Your task to perform on an android device: Go to privacy settings Image 0: 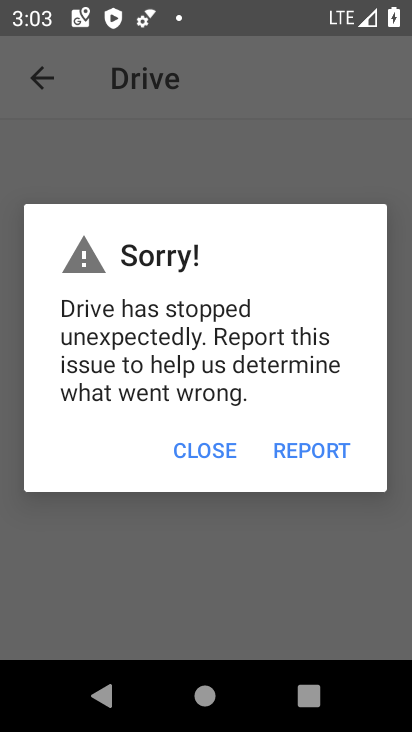
Step 0: click (215, 445)
Your task to perform on an android device: Go to privacy settings Image 1: 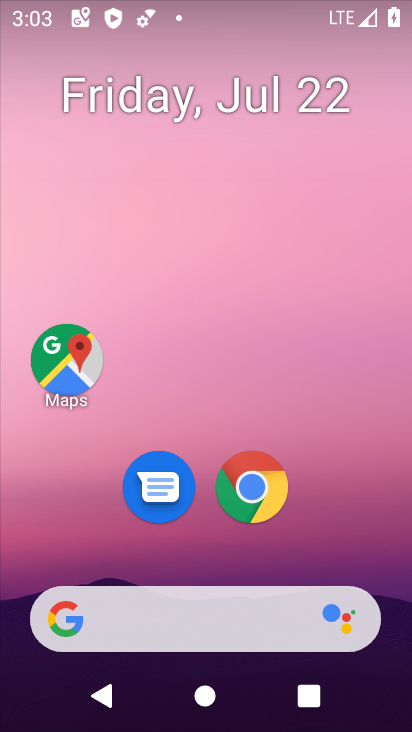
Step 1: drag from (198, 570) to (301, 24)
Your task to perform on an android device: Go to privacy settings Image 2: 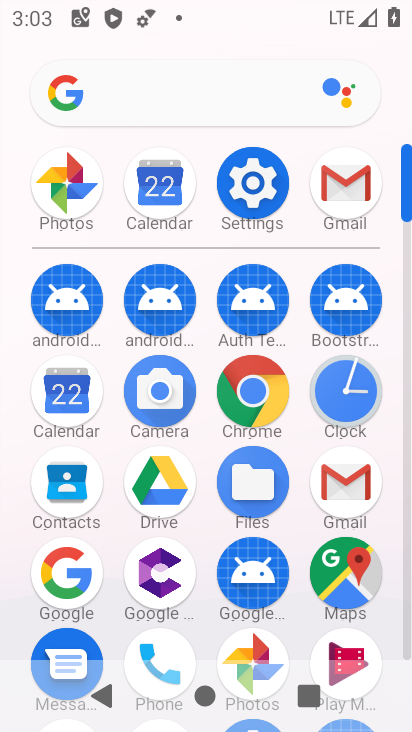
Step 2: click (258, 181)
Your task to perform on an android device: Go to privacy settings Image 3: 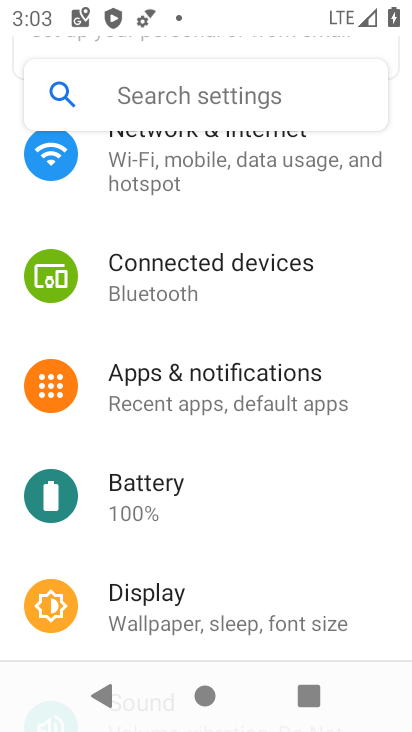
Step 3: drag from (231, 367) to (280, 56)
Your task to perform on an android device: Go to privacy settings Image 4: 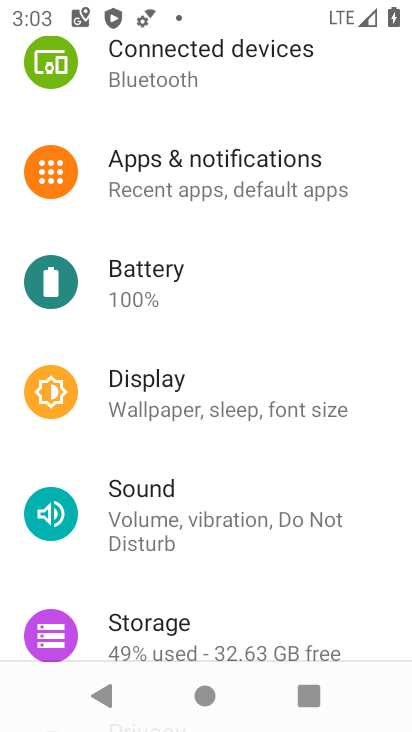
Step 4: drag from (224, 244) to (170, 650)
Your task to perform on an android device: Go to privacy settings Image 5: 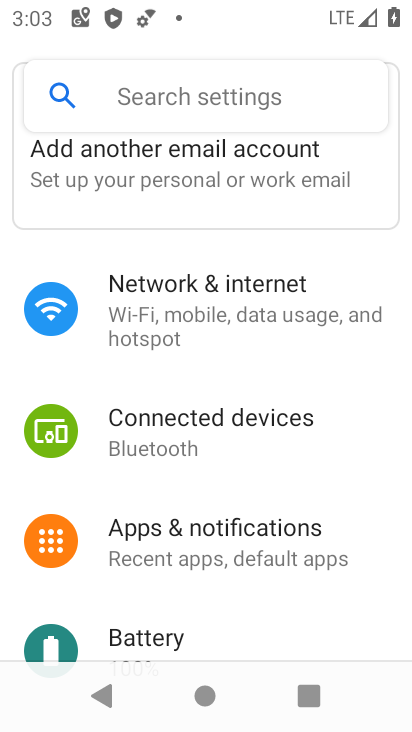
Step 5: drag from (210, 620) to (288, 96)
Your task to perform on an android device: Go to privacy settings Image 6: 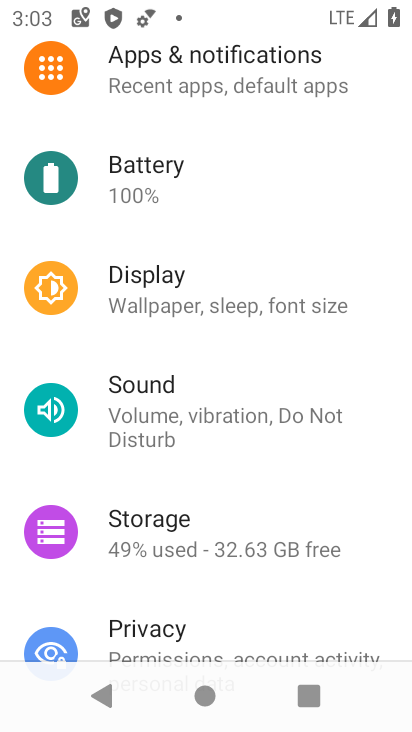
Step 6: click (147, 632)
Your task to perform on an android device: Go to privacy settings Image 7: 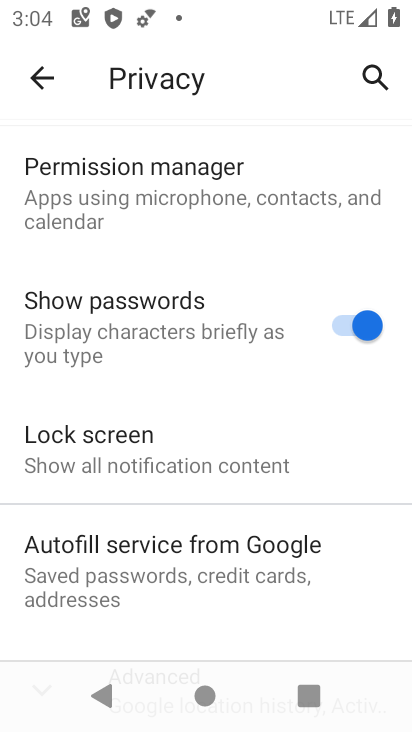
Step 7: task complete